Your task to perform on an android device: search for starred emails in the gmail app Image 0: 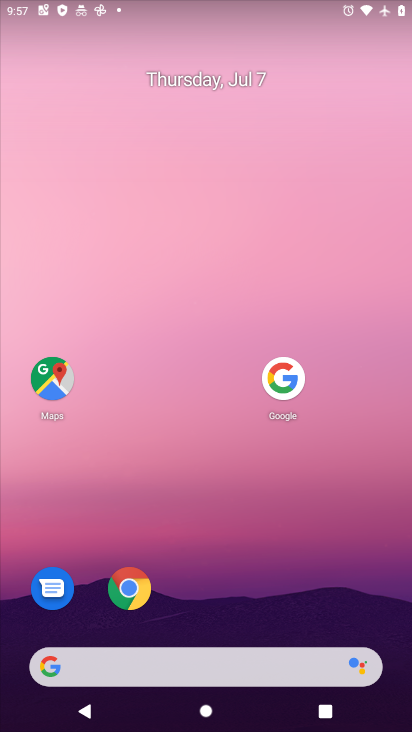
Step 0: drag from (200, 672) to (337, 200)
Your task to perform on an android device: search for starred emails in the gmail app Image 1: 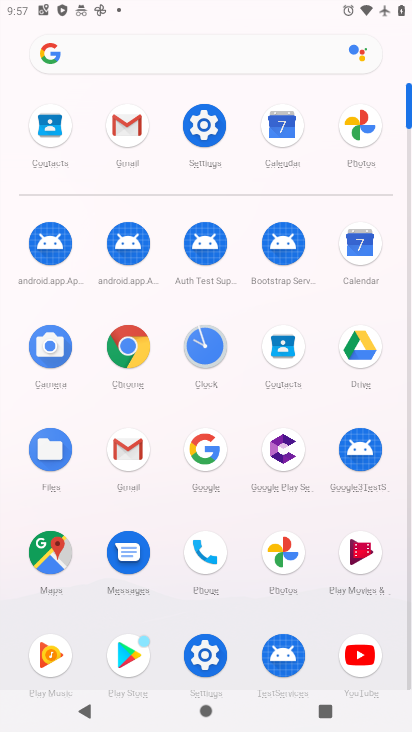
Step 1: click (120, 133)
Your task to perform on an android device: search for starred emails in the gmail app Image 2: 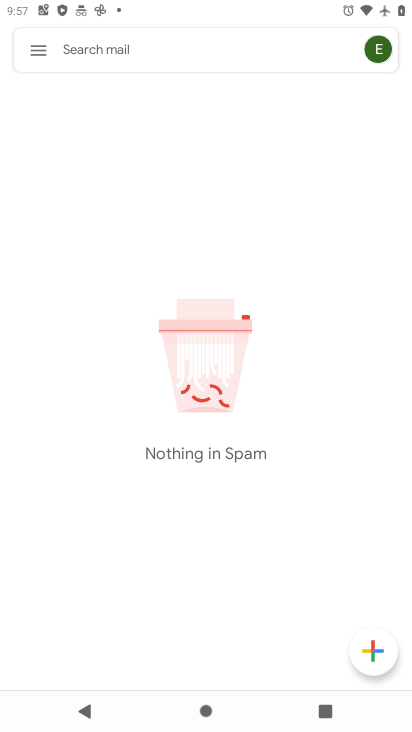
Step 2: click (32, 44)
Your task to perform on an android device: search for starred emails in the gmail app Image 3: 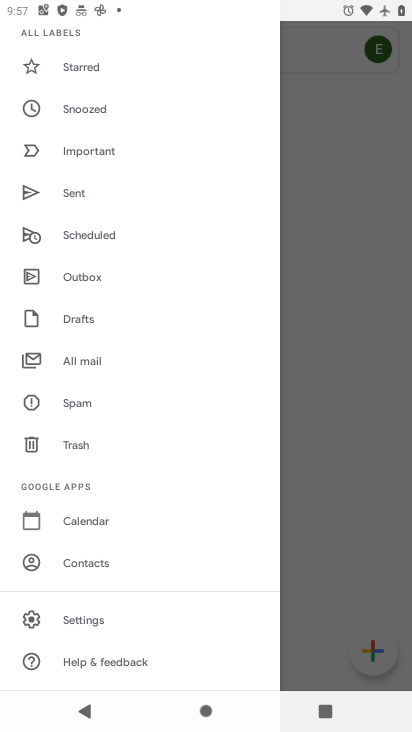
Step 3: click (87, 67)
Your task to perform on an android device: search for starred emails in the gmail app Image 4: 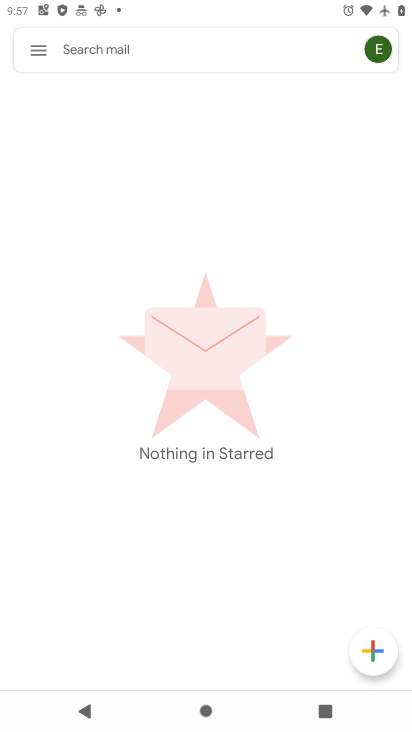
Step 4: task complete